Your task to perform on an android device: Open Maps and search for coffee Image 0: 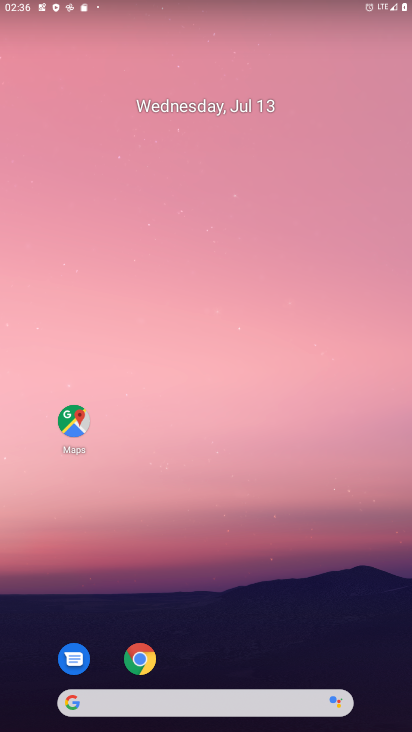
Step 0: drag from (230, 731) to (223, 94)
Your task to perform on an android device: Open Maps and search for coffee Image 1: 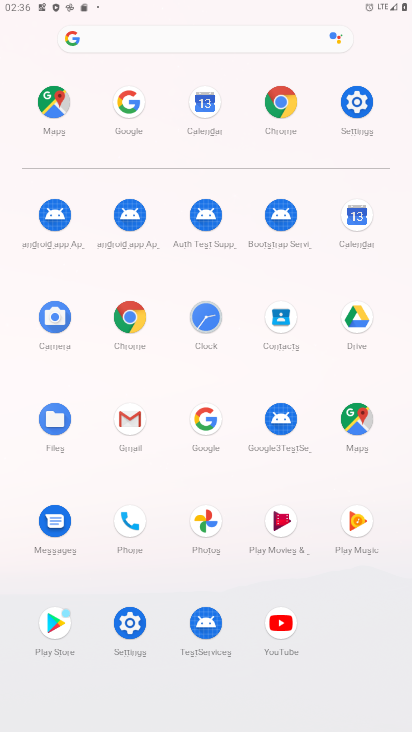
Step 1: click (358, 419)
Your task to perform on an android device: Open Maps and search for coffee Image 2: 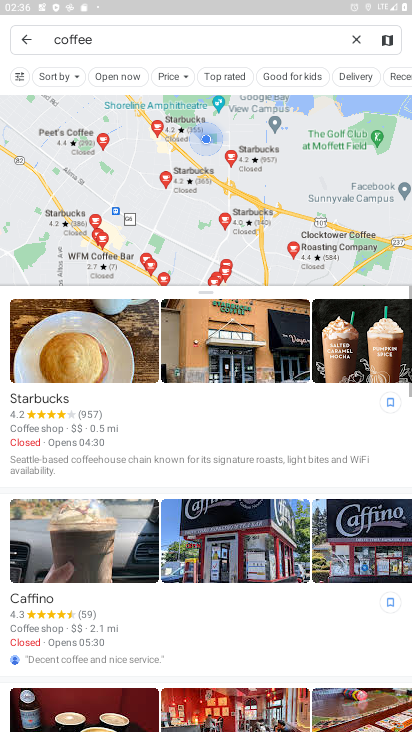
Step 2: task complete